Your task to perform on an android device: turn smart compose on in the gmail app Image 0: 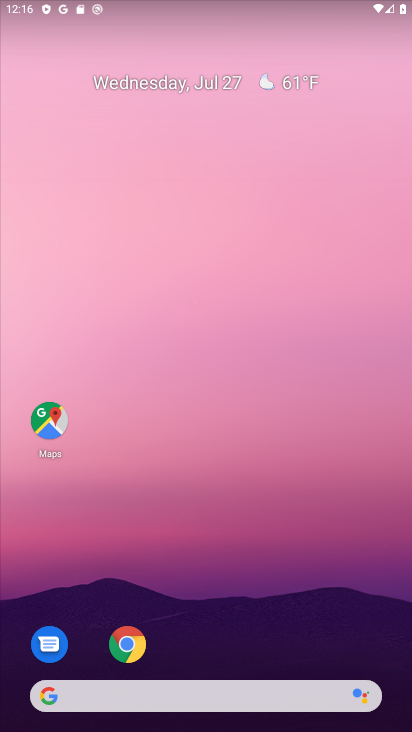
Step 0: drag from (204, 535) to (247, 195)
Your task to perform on an android device: turn smart compose on in the gmail app Image 1: 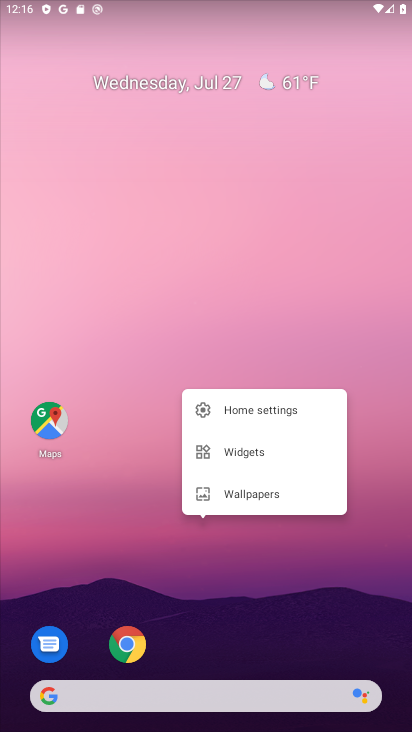
Step 1: drag from (247, 598) to (399, 17)
Your task to perform on an android device: turn smart compose on in the gmail app Image 2: 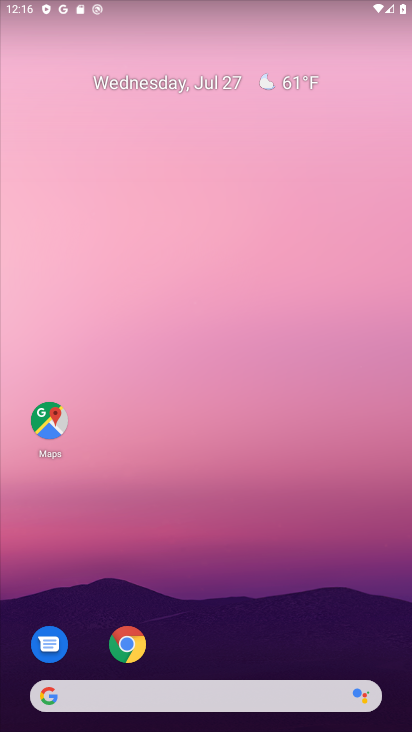
Step 2: drag from (207, 633) to (337, 102)
Your task to perform on an android device: turn smart compose on in the gmail app Image 3: 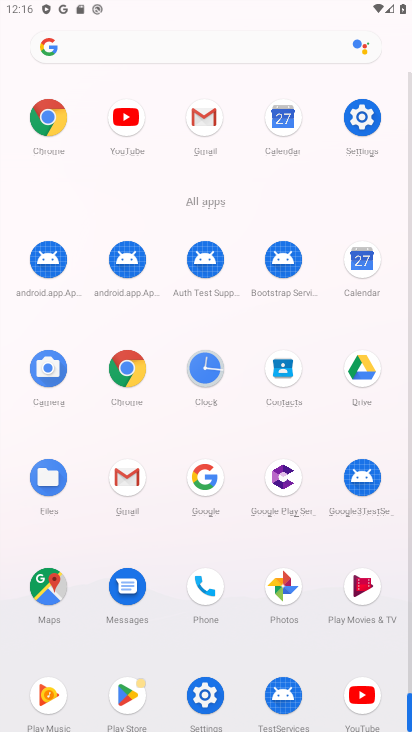
Step 3: click (123, 480)
Your task to perform on an android device: turn smart compose on in the gmail app Image 4: 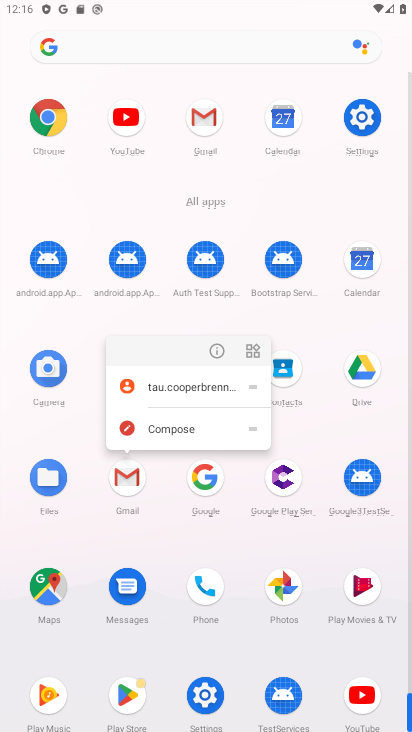
Step 4: click (220, 351)
Your task to perform on an android device: turn smart compose on in the gmail app Image 5: 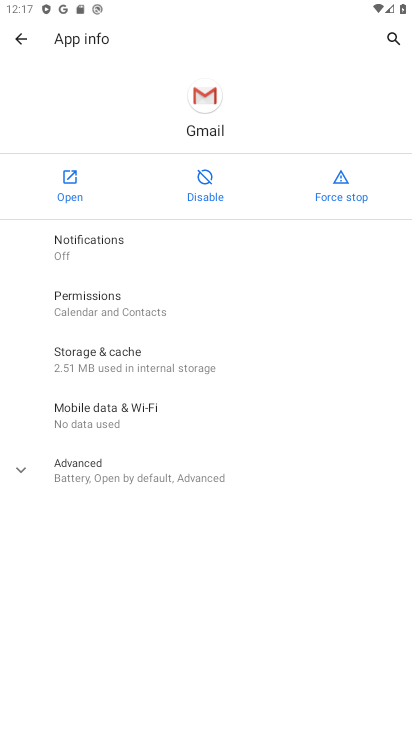
Step 5: click (45, 171)
Your task to perform on an android device: turn smart compose on in the gmail app Image 6: 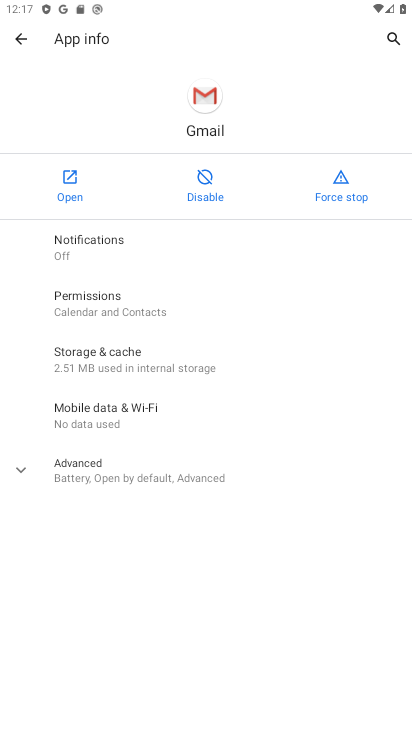
Step 6: click (55, 175)
Your task to perform on an android device: turn smart compose on in the gmail app Image 7: 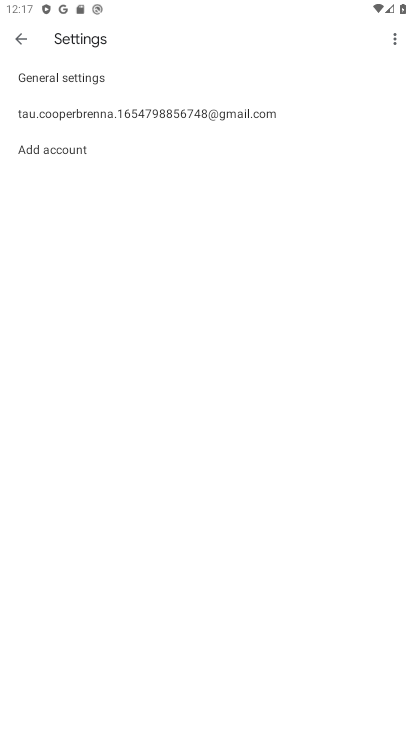
Step 7: click (129, 109)
Your task to perform on an android device: turn smart compose on in the gmail app Image 8: 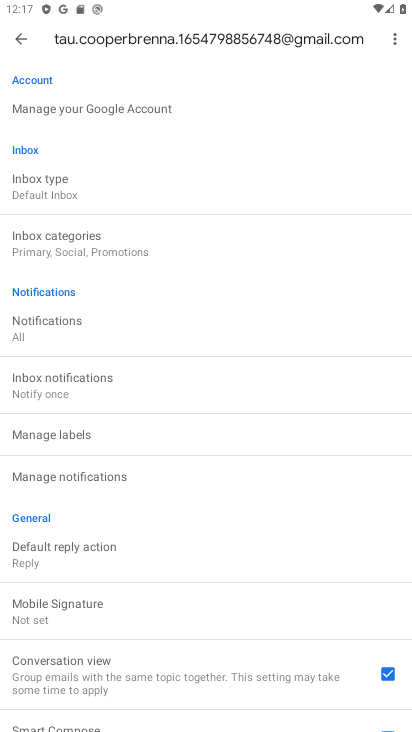
Step 8: task complete